Your task to perform on an android device: turn on airplane mode Image 0: 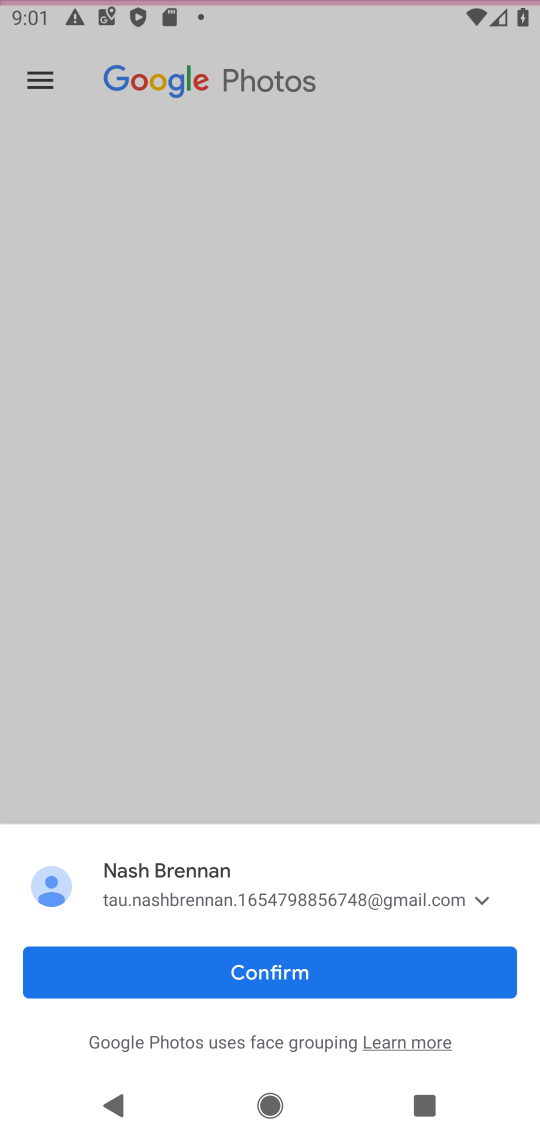
Step 0: press home button
Your task to perform on an android device: turn on airplane mode Image 1: 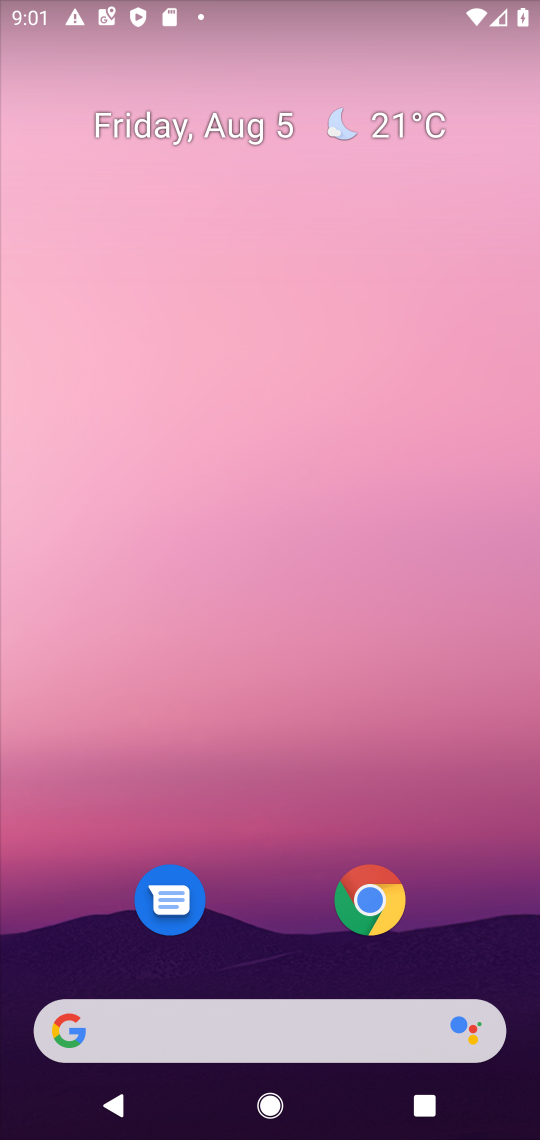
Step 1: drag from (494, 18) to (398, 816)
Your task to perform on an android device: turn on airplane mode Image 2: 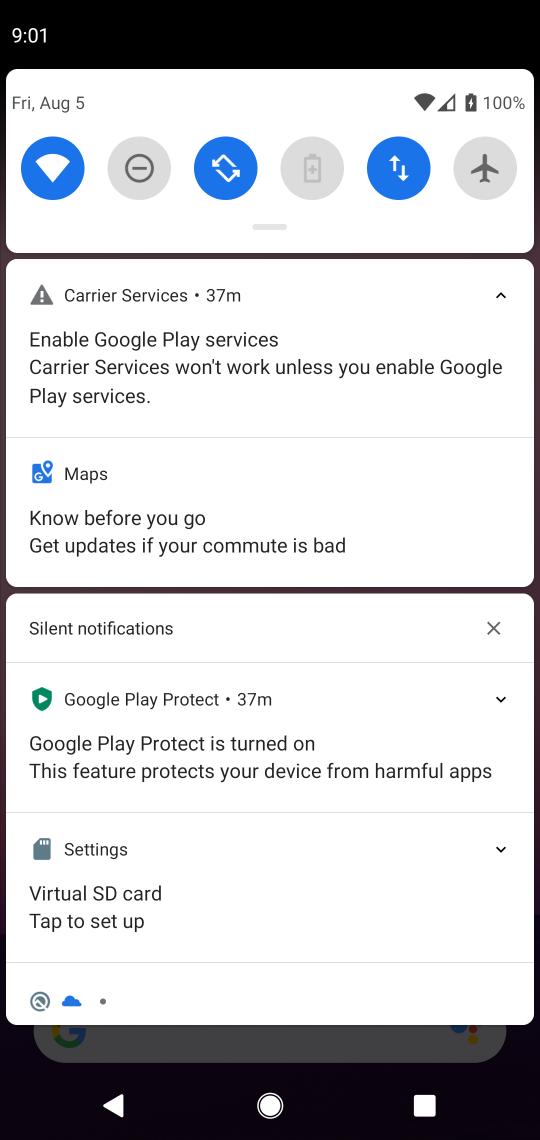
Step 2: click (494, 152)
Your task to perform on an android device: turn on airplane mode Image 3: 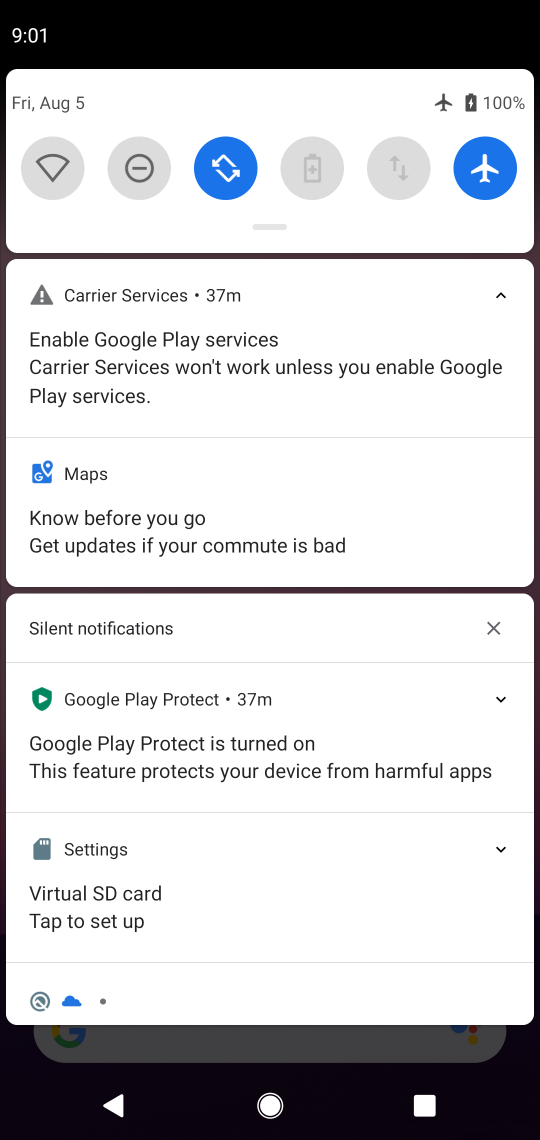
Step 3: task complete